Your task to perform on an android device: toggle pop-ups in chrome Image 0: 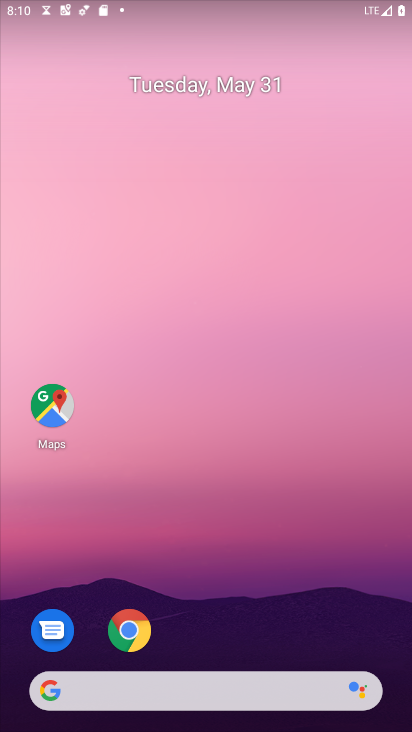
Step 0: click (130, 631)
Your task to perform on an android device: toggle pop-ups in chrome Image 1: 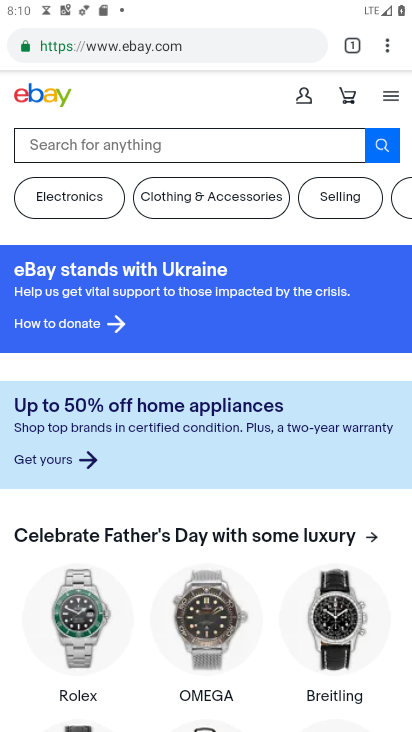
Step 1: click (387, 43)
Your task to perform on an android device: toggle pop-ups in chrome Image 2: 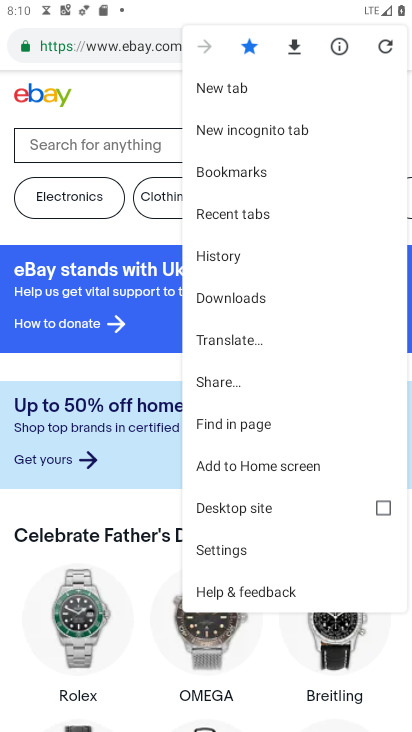
Step 2: click (233, 550)
Your task to perform on an android device: toggle pop-ups in chrome Image 3: 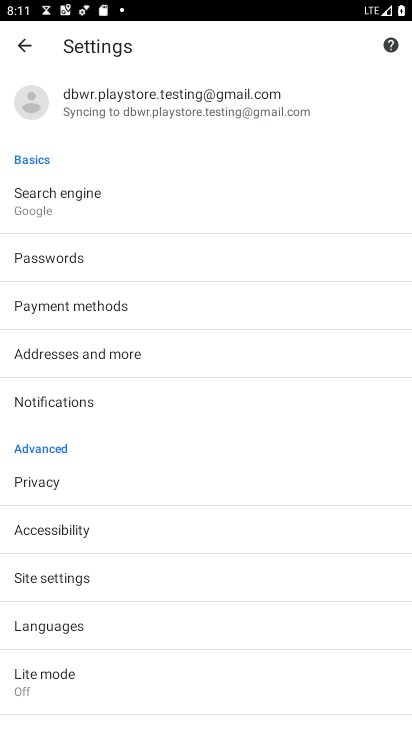
Step 3: click (76, 584)
Your task to perform on an android device: toggle pop-ups in chrome Image 4: 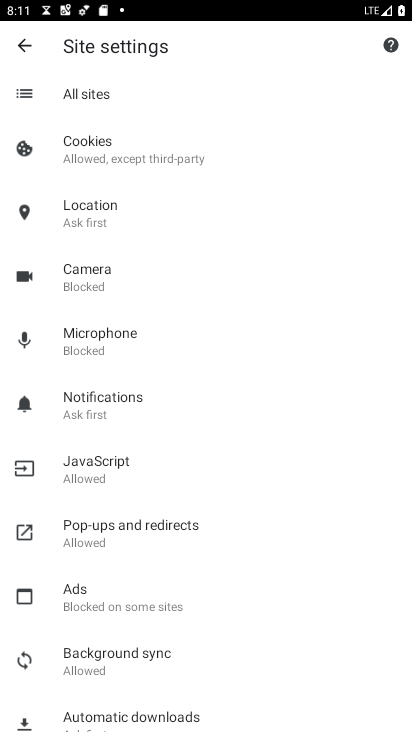
Step 4: click (156, 530)
Your task to perform on an android device: toggle pop-ups in chrome Image 5: 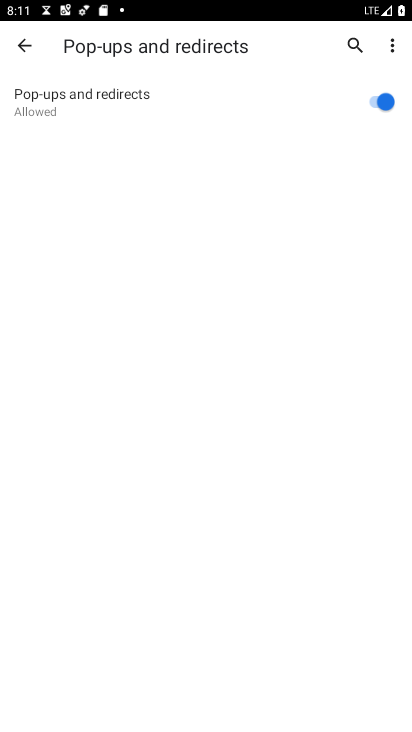
Step 5: click (372, 99)
Your task to perform on an android device: toggle pop-ups in chrome Image 6: 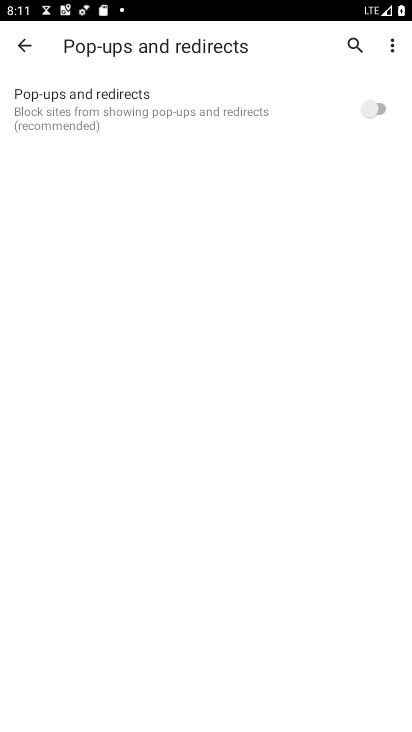
Step 6: task complete